Your task to perform on an android device: move a message to another label in the gmail app Image 0: 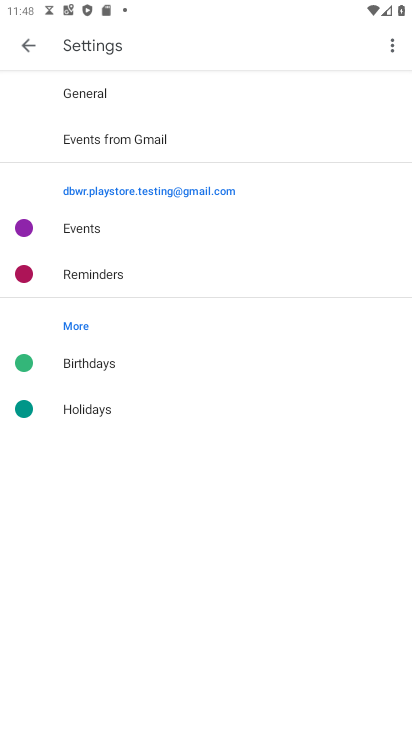
Step 0: press home button
Your task to perform on an android device: move a message to another label in the gmail app Image 1: 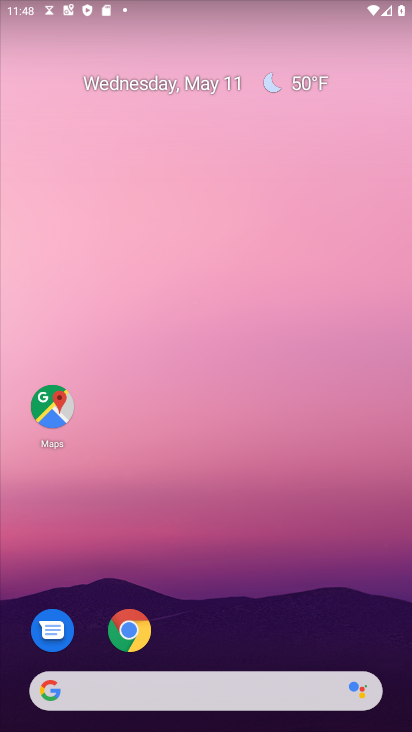
Step 1: drag from (196, 728) to (194, 147)
Your task to perform on an android device: move a message to another label in the gmail app Image 2: 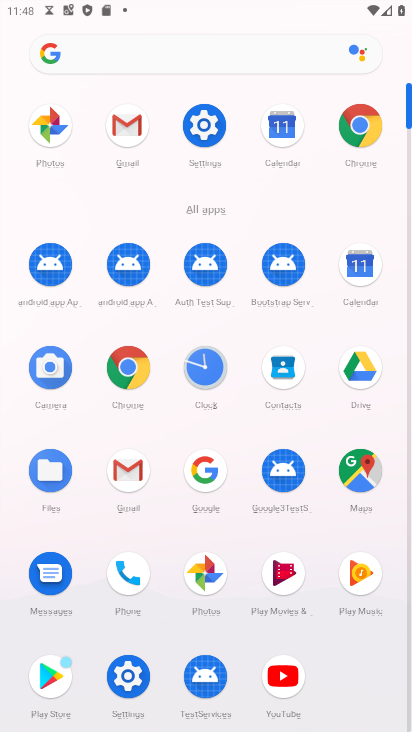
Step 2: click (135, 465)
Your task to perform on an android device: move a message to another label in the gmail app Image 3: 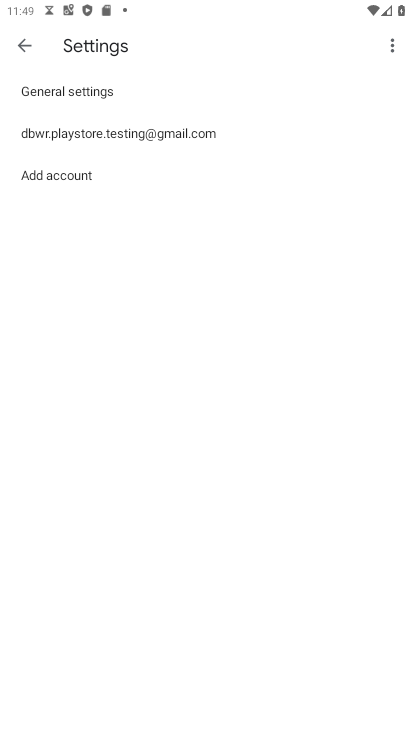
Step 3: click (28, 48)
Your task to perform on an android device: move a message to another label in the gmail app Image 4: 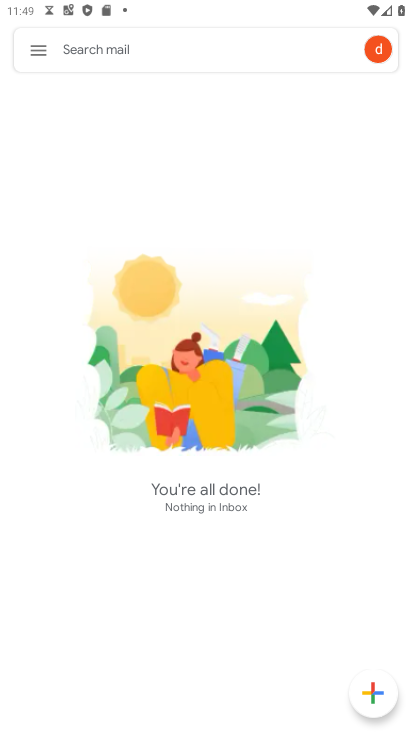
Step 4: task complete